Your task to perform on an android device: Go to Yahoo.com Image 0: 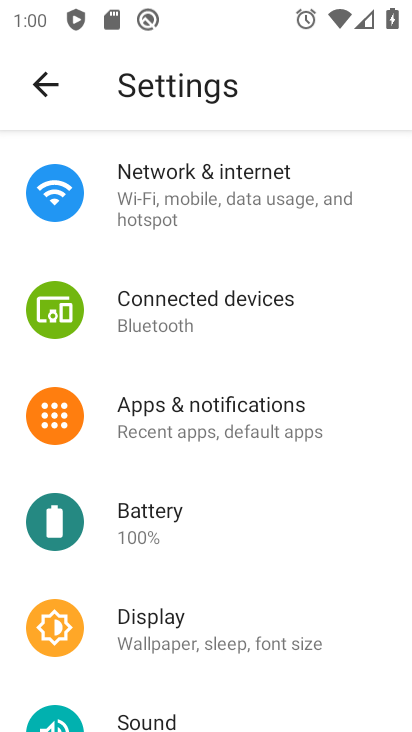
Step 0: press home button
Your task to perform on an android device: Go to Yahoo.com Image 1: 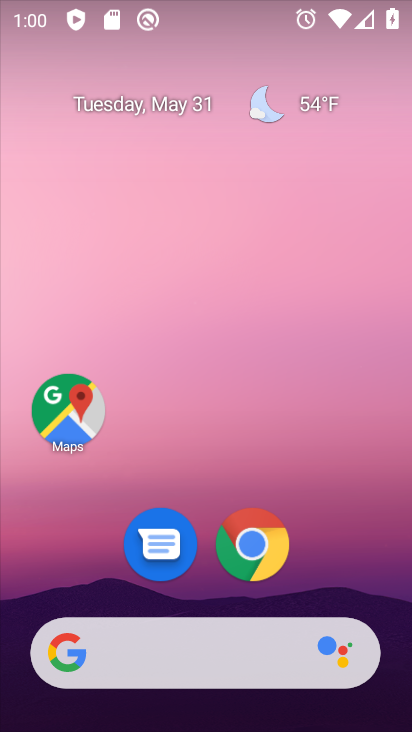
Step 1: click (250, 542)
Your task to perform on an android device: Go to Yahoo.com Image 2: 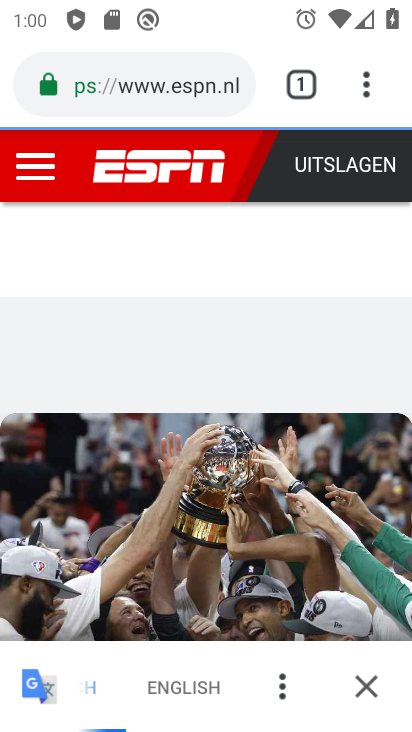
Step 2: click (171, 81)
Your task to perform on an android device: Go to Yahoo.com Image 3: 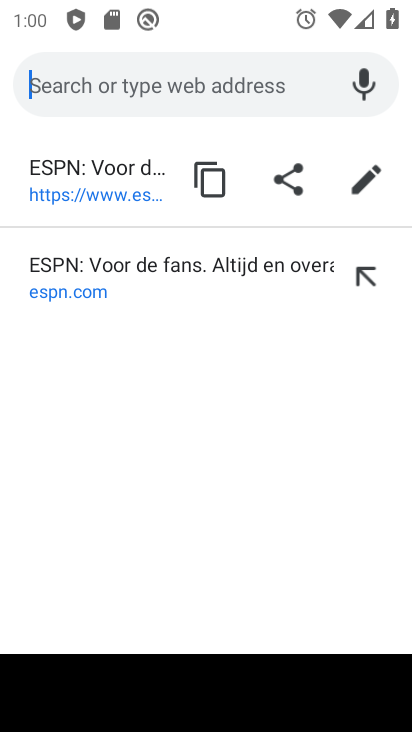
Step 3: type "yahoo.com"
Your task to perform on an android device: Go to Yahoo.com Image 4: 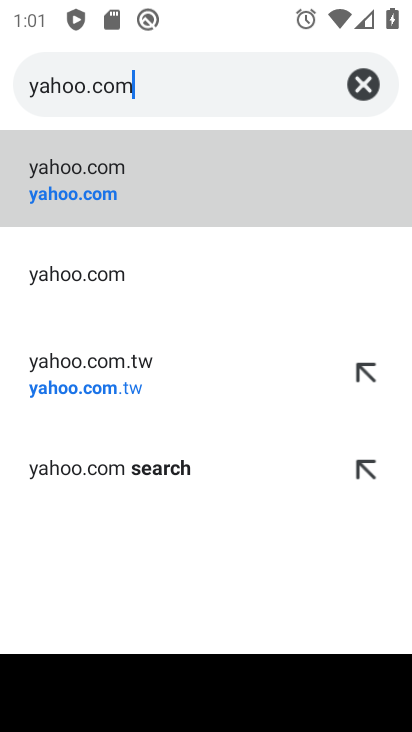
Step 4: click (92, 179)
Your task to perform on an android device: Go to Yahoo.com Image 5: 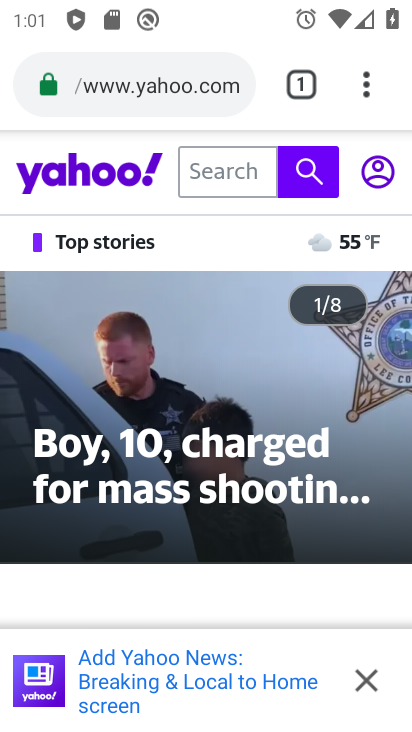
Step 5: task complete